Your task to perform on an android device: Search for "macbook air" on ebay.com, select the first entry, and add it to the cart. Image 0: 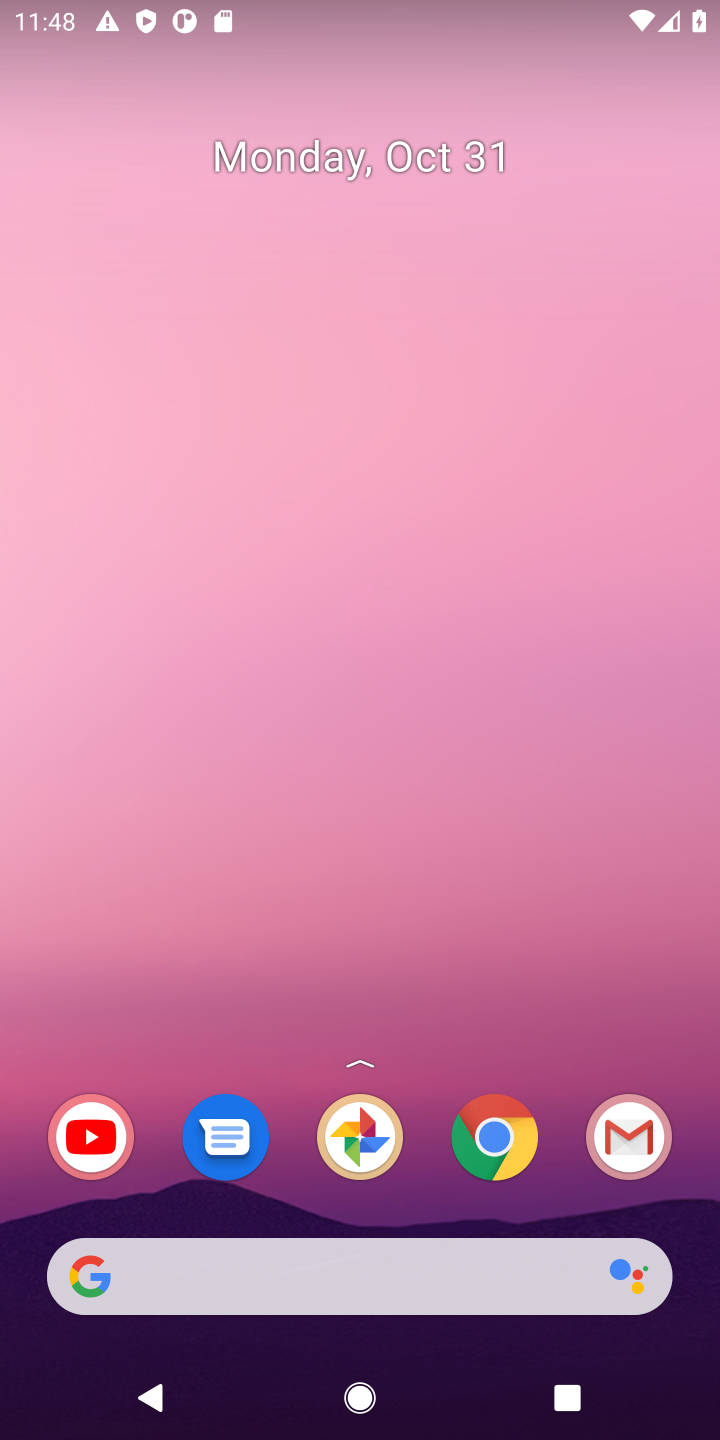
Step 0: click (498, 1137)
Your task to perform on an android device: Search for "macbook air" on ebay.com, select the first entry, and add it to the cart. Image 1: 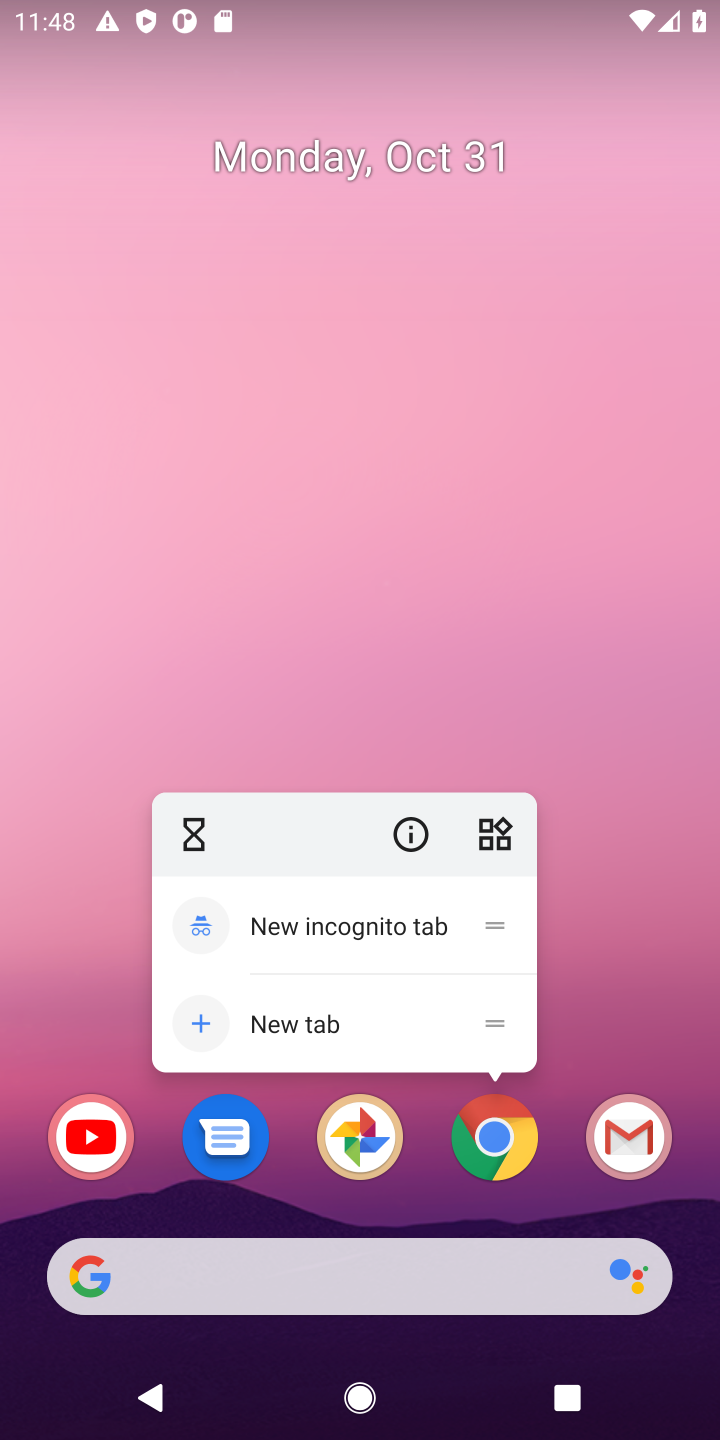
Step 1: click (498, 1137)
Your task to perform on an android device: Search for "macbook air" on ebay.com, select the first entry, and add it to the cart. Image 2: 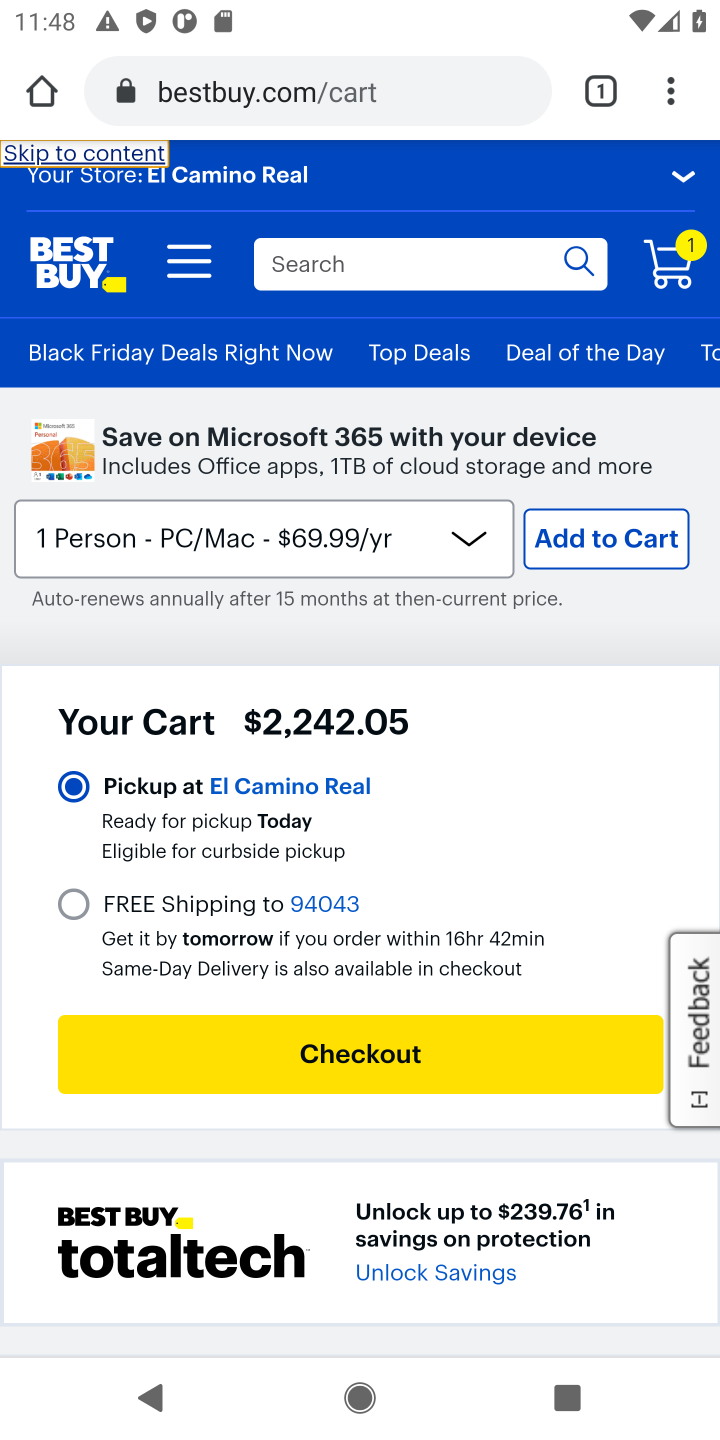
Step 2: click (417, 83)
Your task to perform on an android device: Search for "macbook air" on ebay.com, select the first entry, and add it to the cart. Image 3: 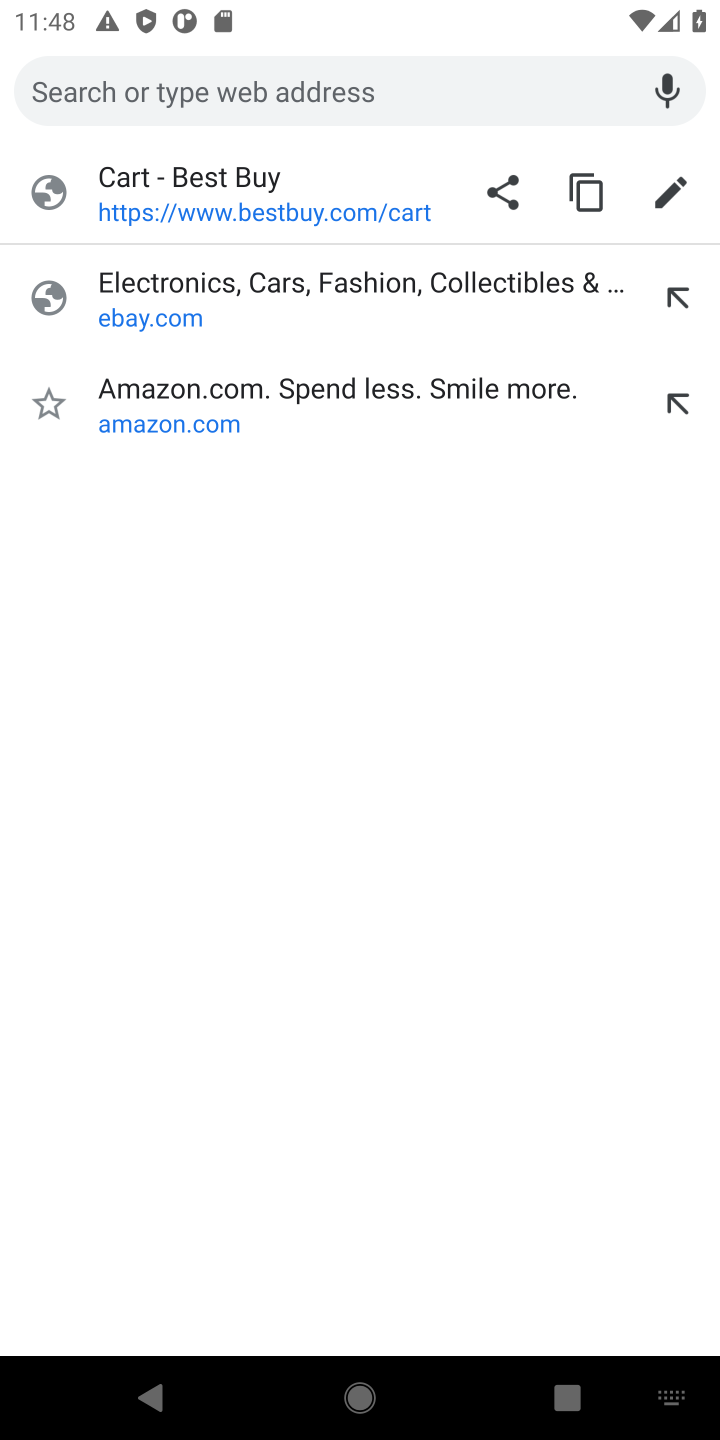
Step 3: type "ebay.com"
Your task to perform on an android device: Search for "macbook air" on ebay.com, select the first entry, and add it to the cart. Image 4: 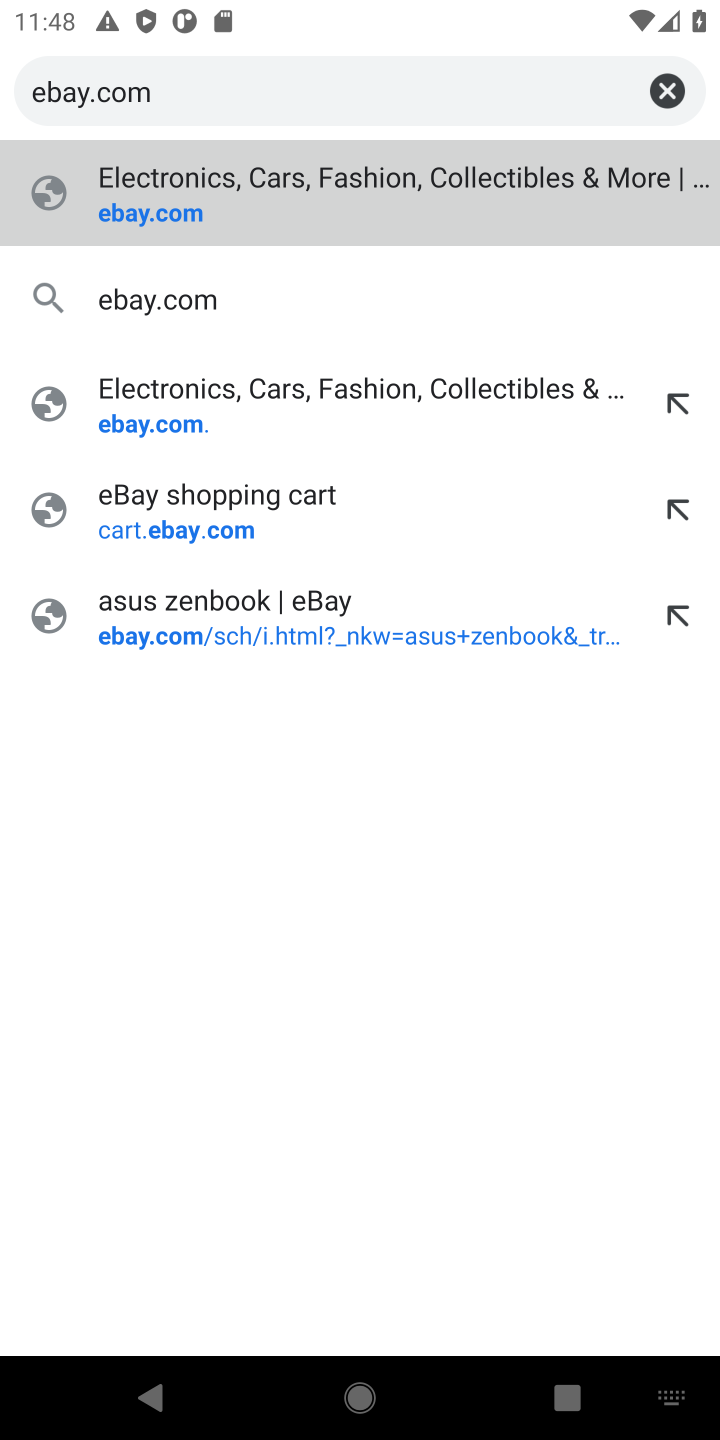
Step 4: click (155, 303)
Your task to perform on an android device: Search for "macbook air" on ebay.com, select the first entry, and add it to the cart. Image 5: 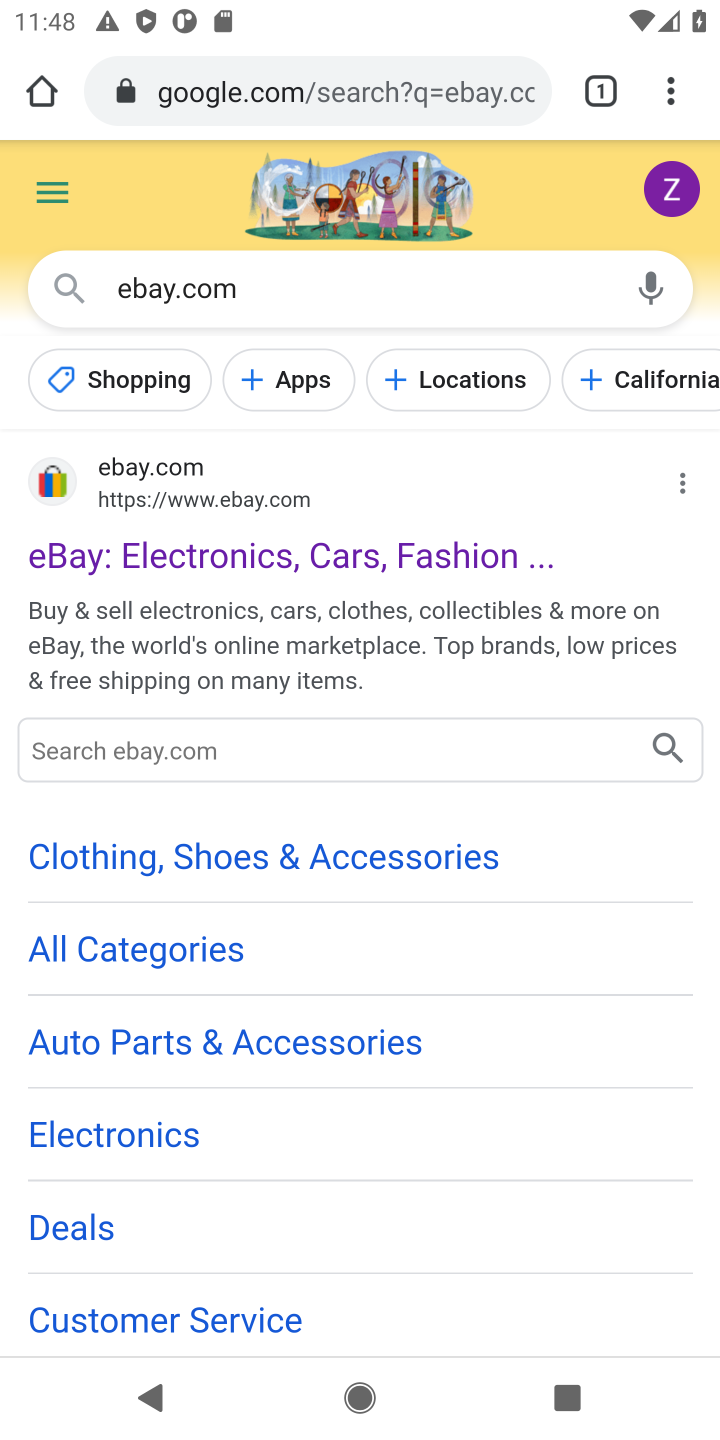
Step 5: click (343, 550)
Your task to perform on an android device: Search for "macbook air" on ebay.com, select the first entry, and add it to the cart. Image 6: 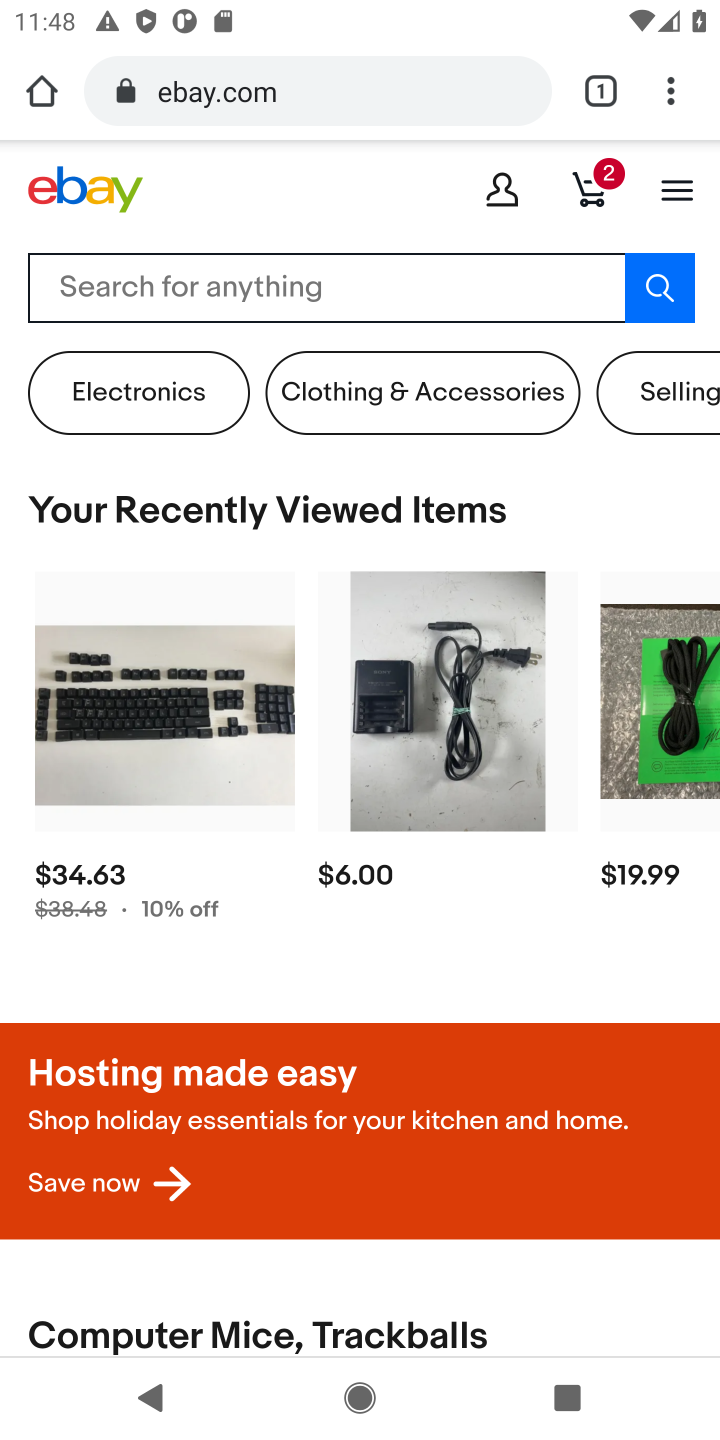
Step 6: click (352, 292)
Your task to perform on an android device: Search for "macbook air" on ebay.com, select the first entry, and add it to the cart. Image 7: 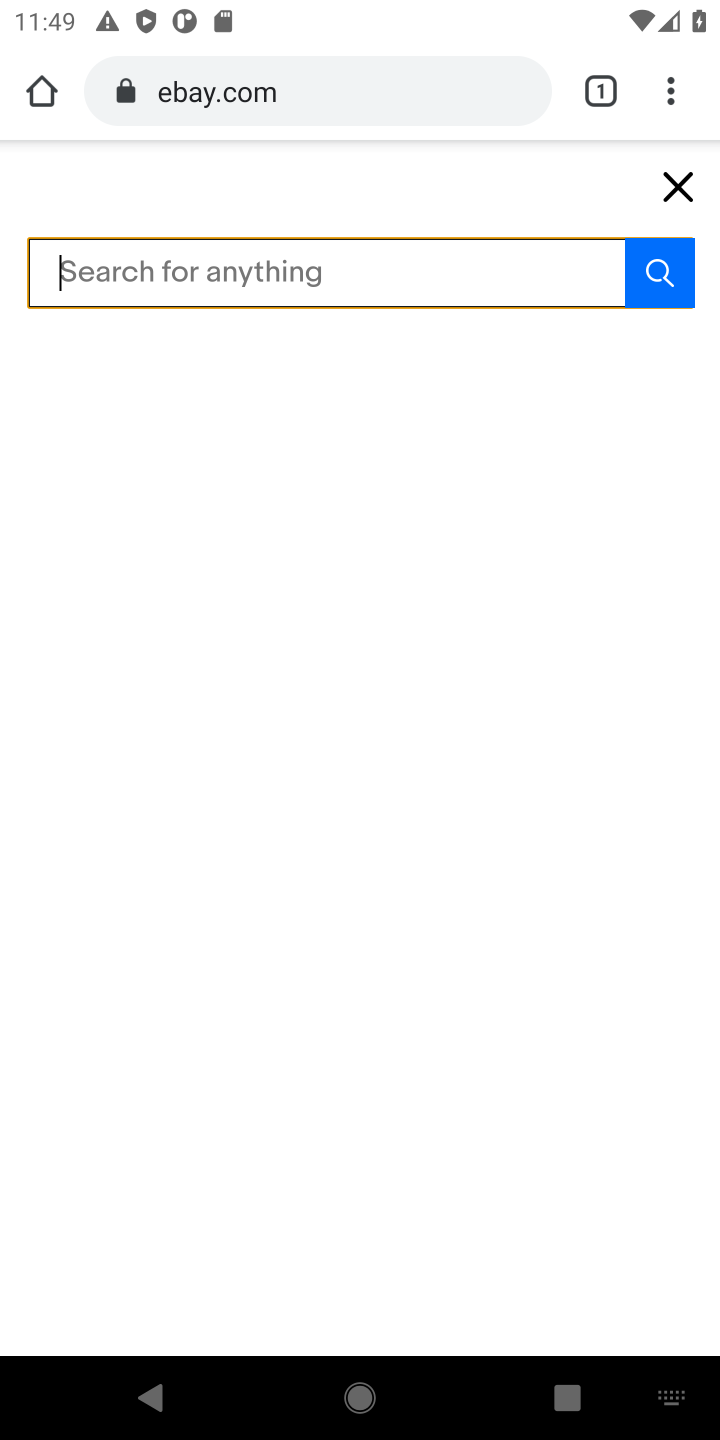
Step 7: type "macbook air"
Your task to perform on an android device: Search for "macbook air" on ebay.com, select the first entry, and add it to the cart. Image 8: 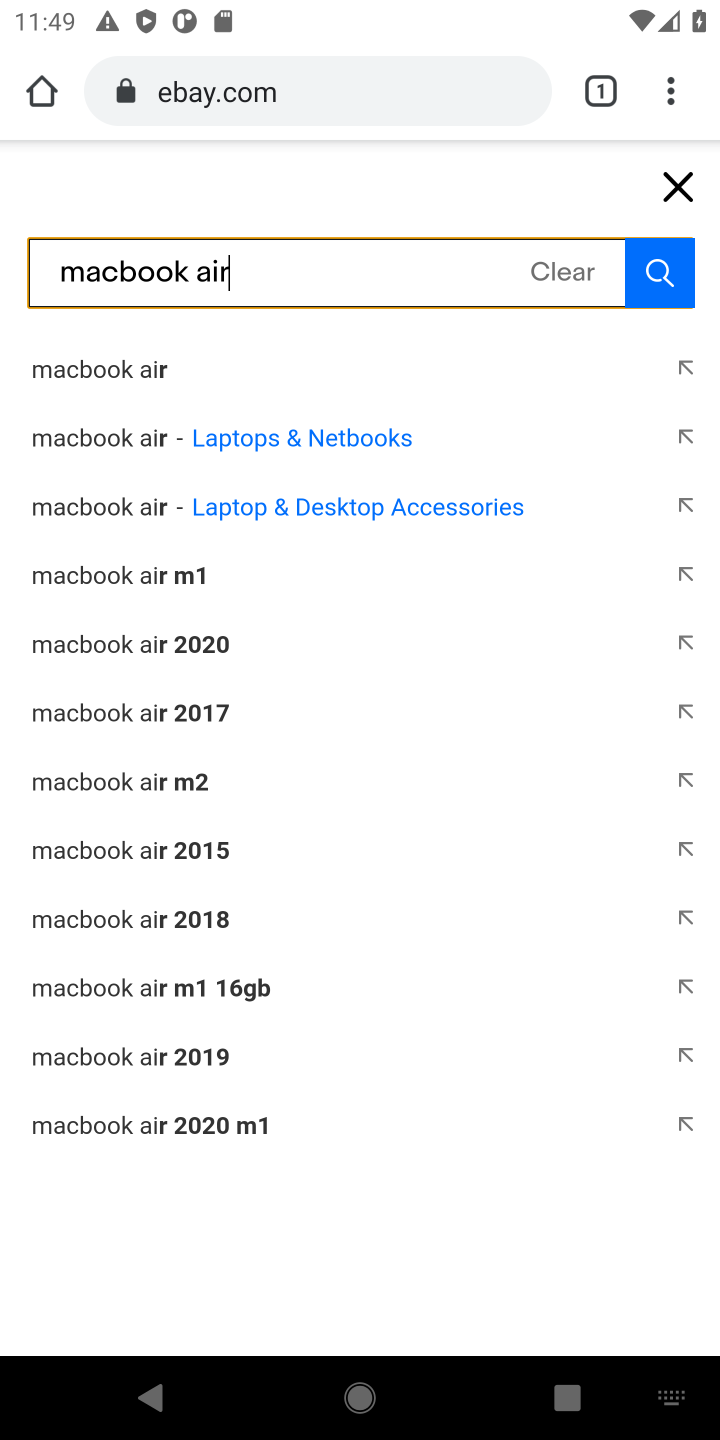
Step 8: click (657, 279)
Your task to perform on an android device: Search for "macbook air" on ebay.com, select the first entry, and add it to the cart. Image 9: 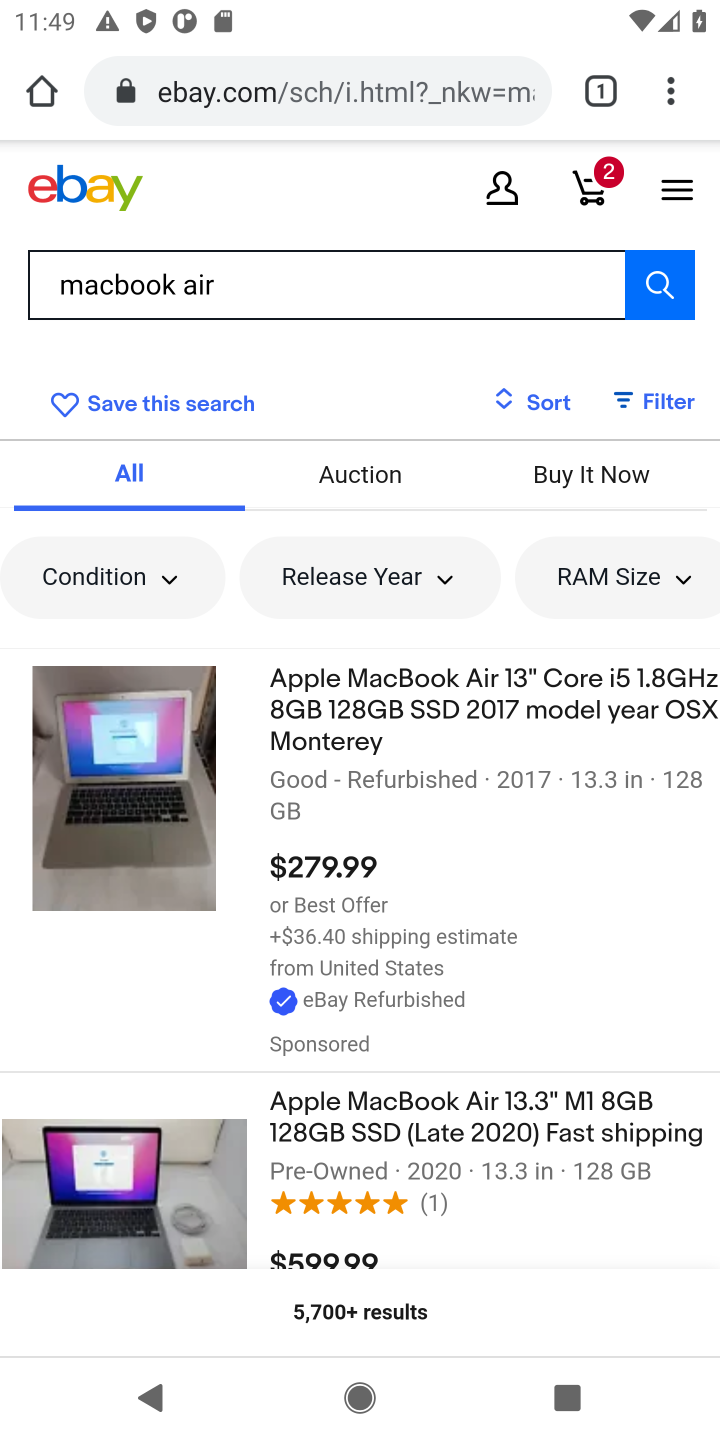
Step 9: click (449, 719)
Your task to perform on an android device: Search for "macbook air" on ebay.com, select the first entry, and add it to the cart. Image 10: 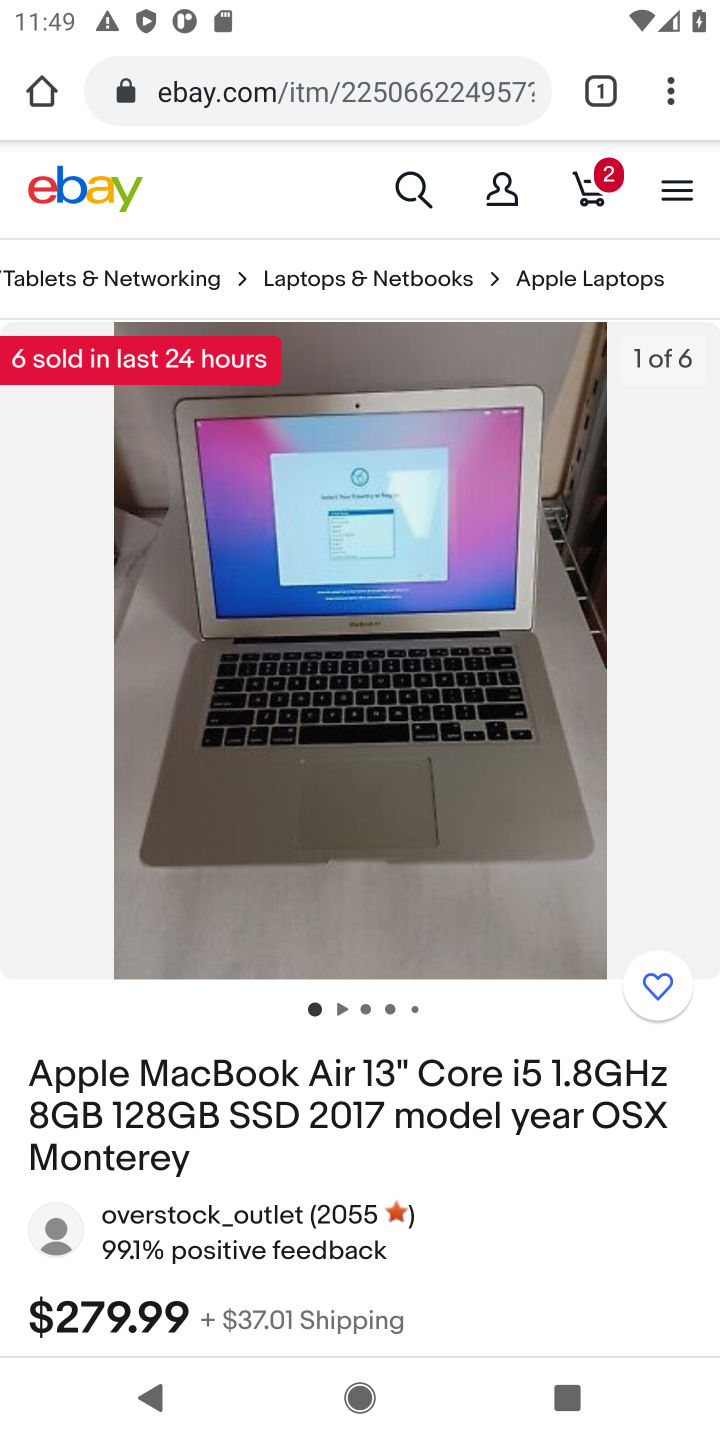
Step 10: drag from (509, 783) to (517, 651)
Your task to perform on an android device: Search for "macbook air" on ebay.com, select the first entry, and add it to the cart. Image 11: 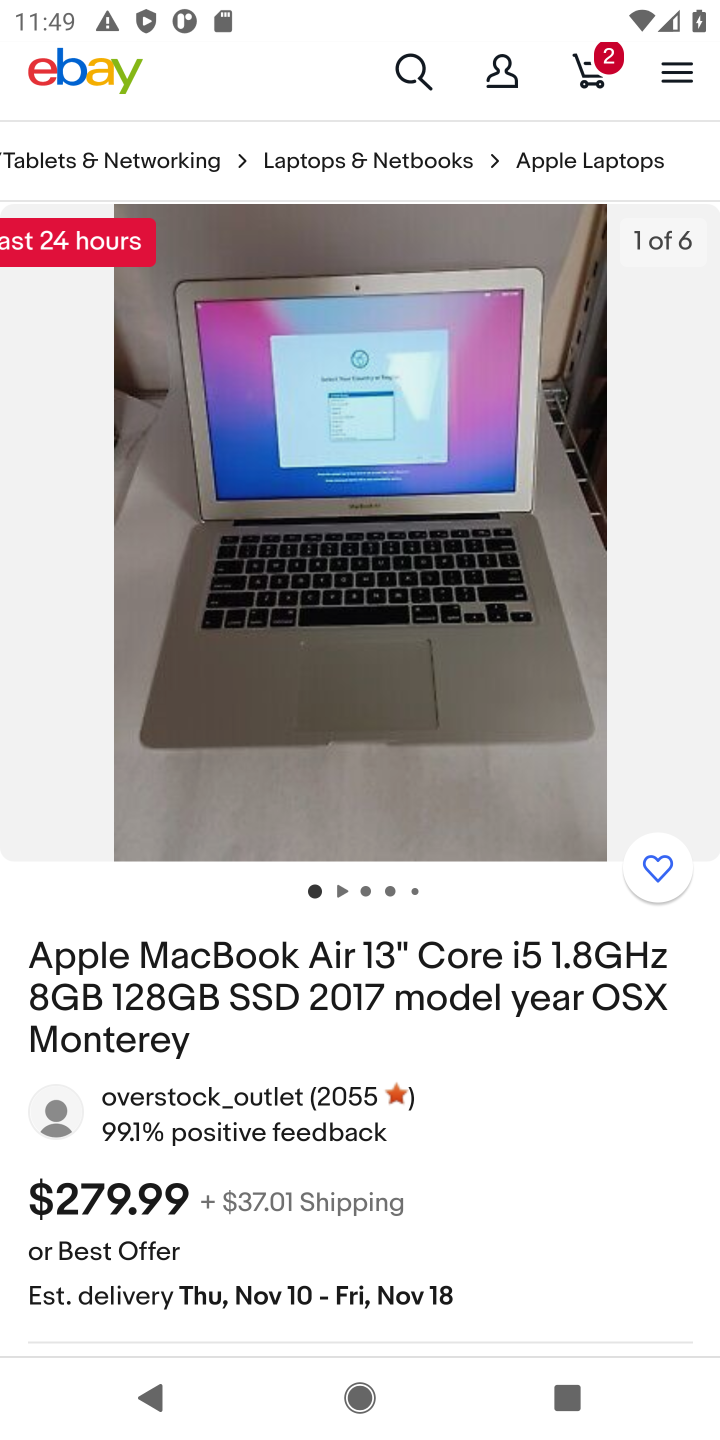
Step 11: click (494, 597)
Your task to perform on an android device: Search for "macbook air" on ebay.com, select the first entry, and add it to the cart. Image 12: 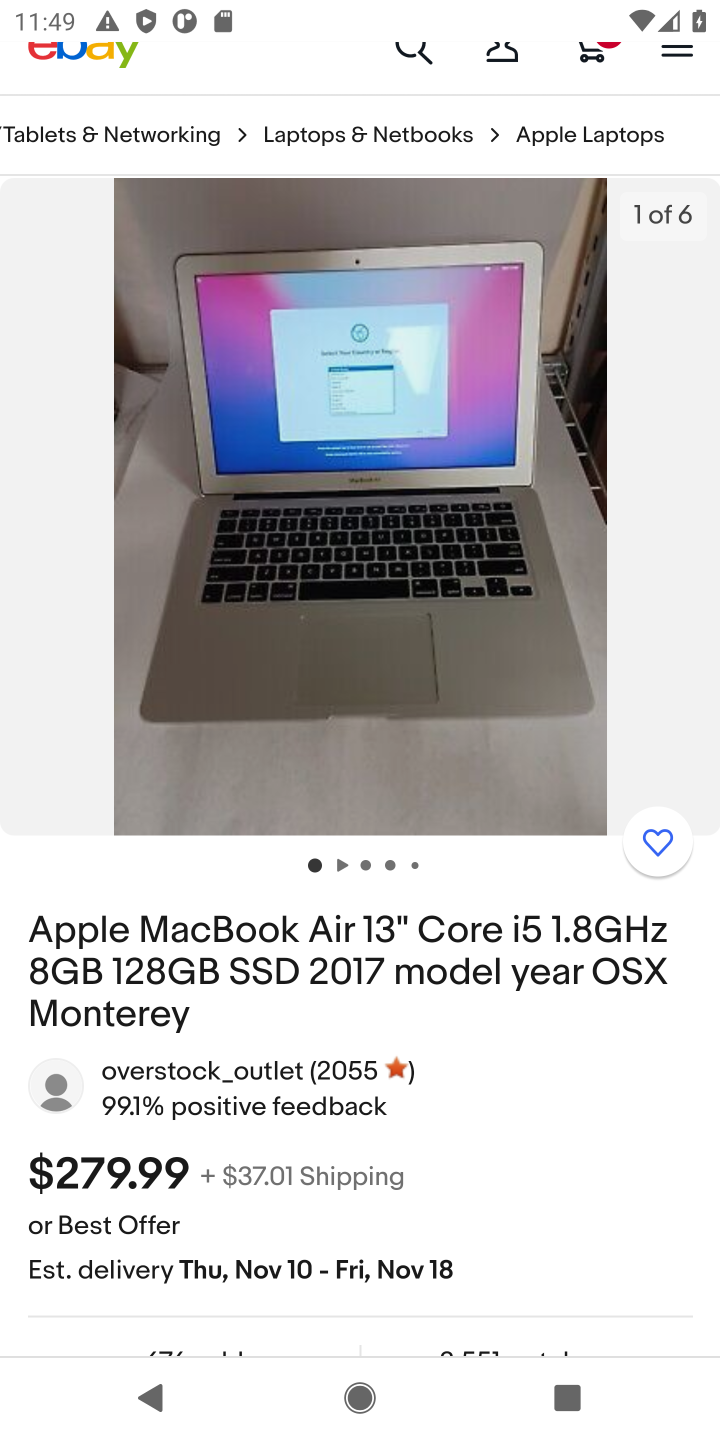
Step 12: drag from (357, 983) to (513, 278)
Your task to perform on an android device: Search for "macbook air" on ebay.com, select the first entry, and add it to the cart. Image 13: 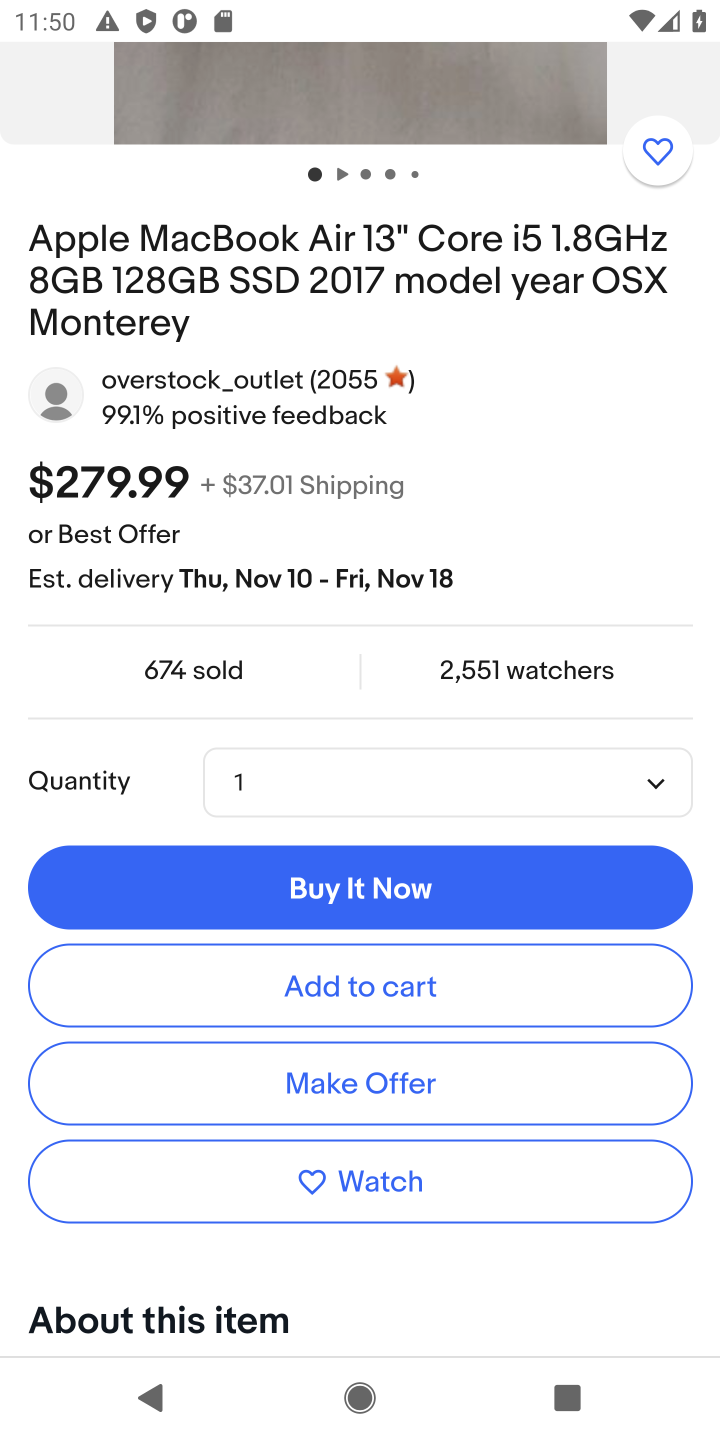
Step 13: click (366, 986)
Your task to perform on an android device: Search for "macbook air" on ebay.com, select the first entry, and add it to the cart. Image 14: 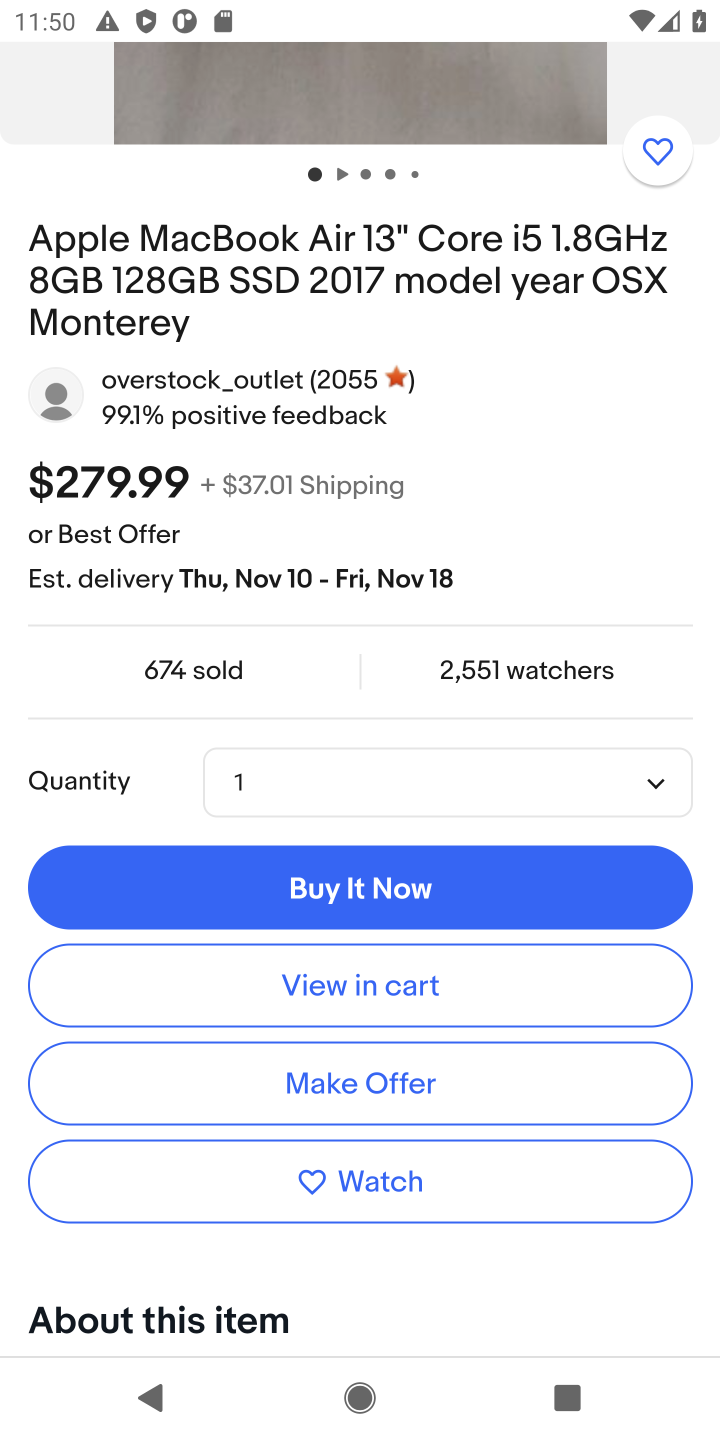
Step 14: click (366, 986)
Your task to perform on an android device: Search for "macbook air" on ebay.com, select the first entry, and add it to the cart. Image 15: 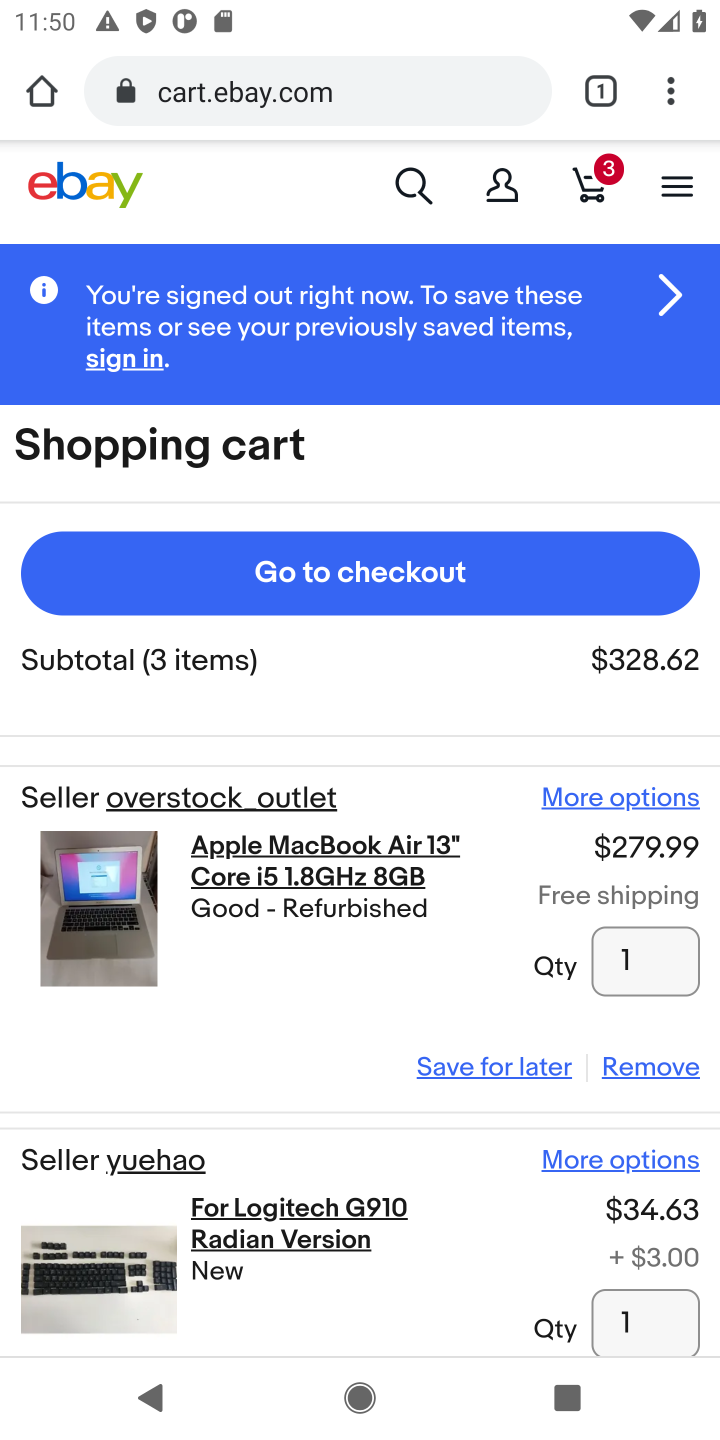
Step 15: task complete